Your task to perform on an android device: turn off translation in the chrome app Image 0: 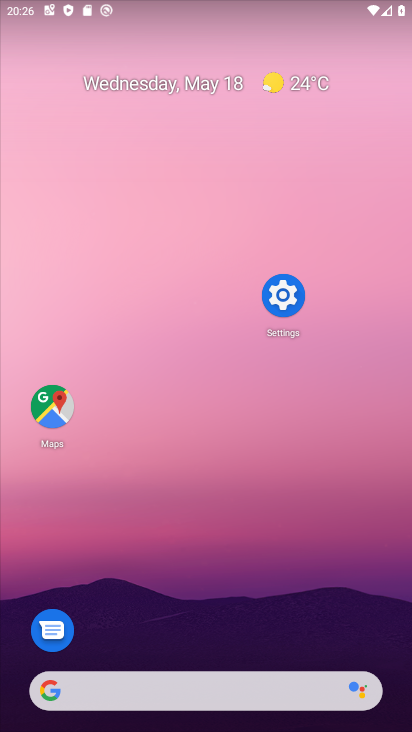
Step 0: drag from (180, 663) to (168, 410)
Your task to perform on an android device: turn off translation in the chrome app Image 1: 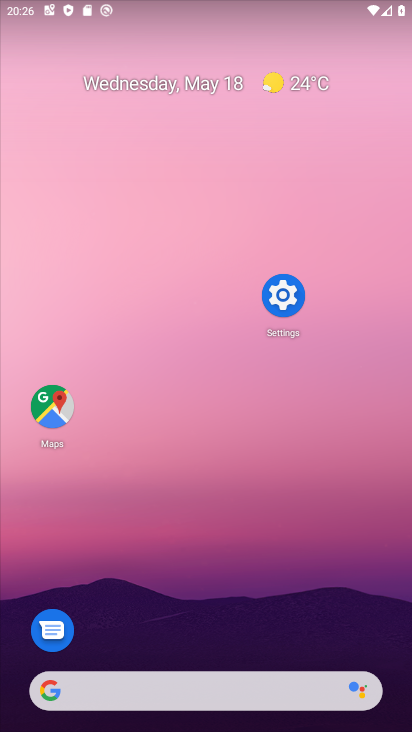
Step 1: click (205, 217)
Your task to perform on an android device: turn off translation in the chrome app Image 2: 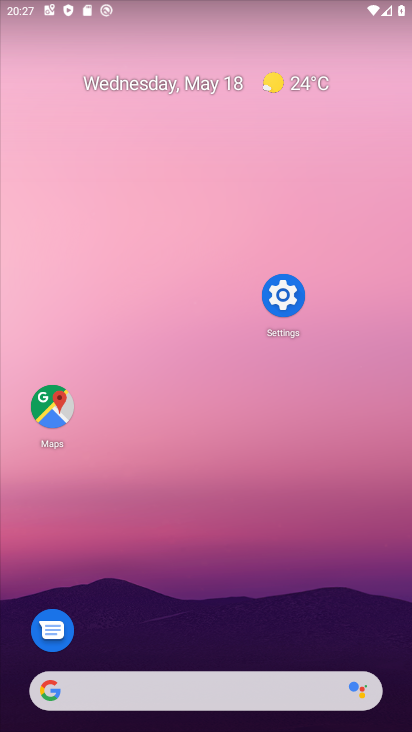
Step 2: drag from (76, 673) to (123, 427)
Your task to perform on an android device: turn off translation in the chrome app Image 3: 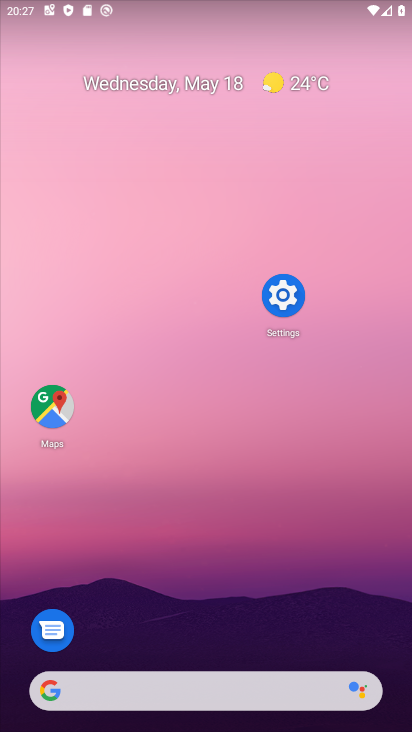
Step 3: drag from (199, 666) to (196, 165)
Your task to perform on an android device: turn off translation in the chrome app Image 4: 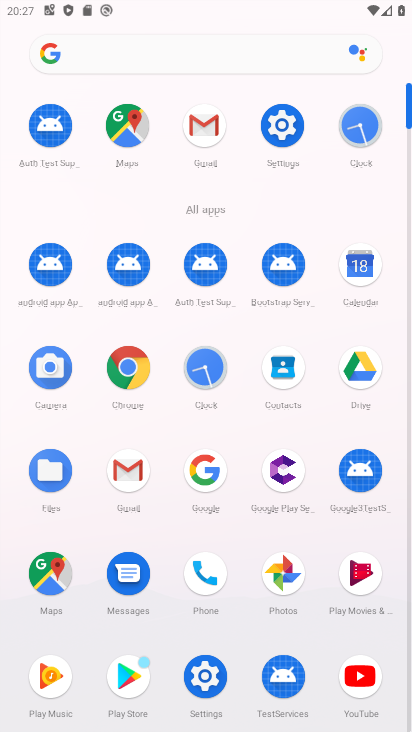
Step 4: click (139, 362)
Your task to perform on an android device: turn off translation in the chrome app Image 5: 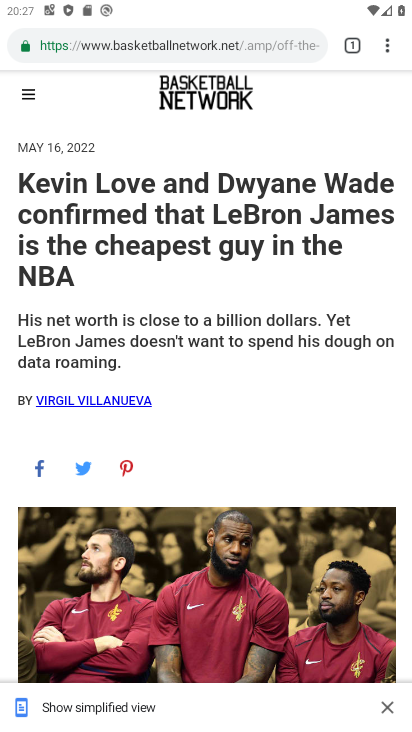
Step 5: click (386, 45)
Your task to perform on an android device: turn off translation in the chrome app Image 6: 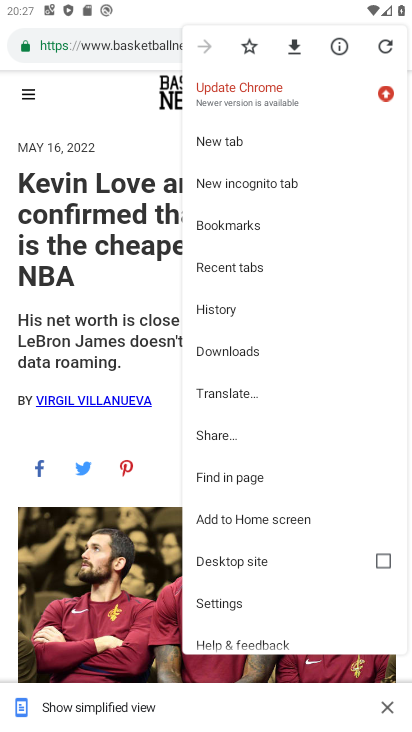
Step 6: click (221, 610)
Your task to perform on an android device: turn off translation in the chrome app Image 7: 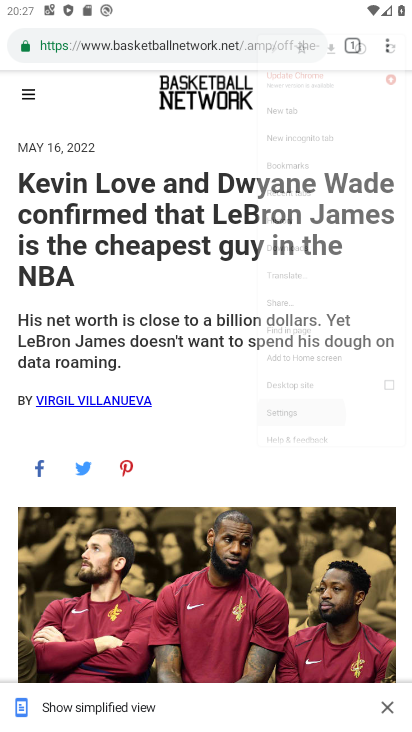
Step 7: click (215, 604)
Your task to perform on an android device: turn off translation in the chrome app Image 8: 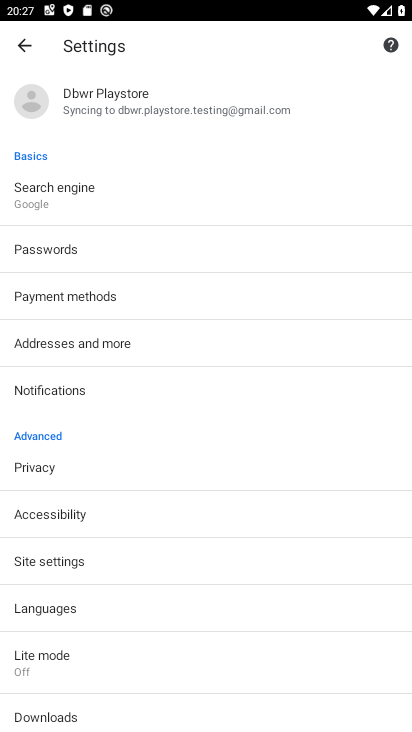
Step 8: click (70, 605)
Your task to perform on an android device: turn off translation in the chrome app Image 9: 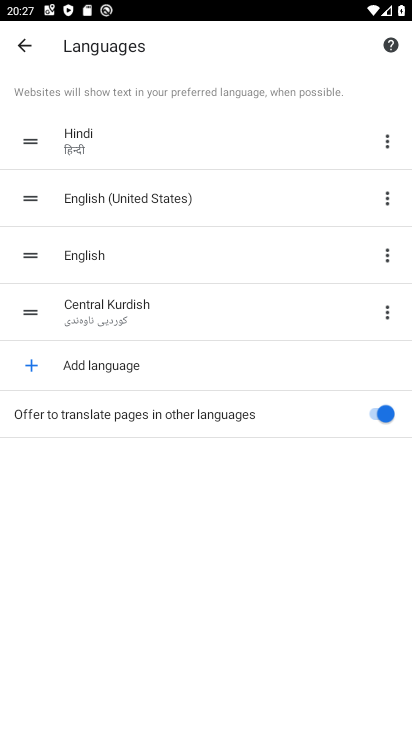
Step 9: click (373, 416)
Your task to perform on an android device: turn off translation in the chrome app Image 10: 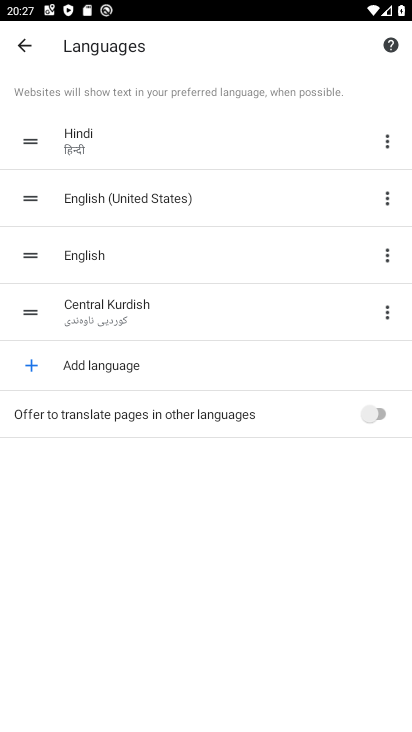
Step 10: task complete